Your task to perform on an android device: Search for "corsair k70" on bestbuy.com, select the first entry, and add it to the cart. Image 0: 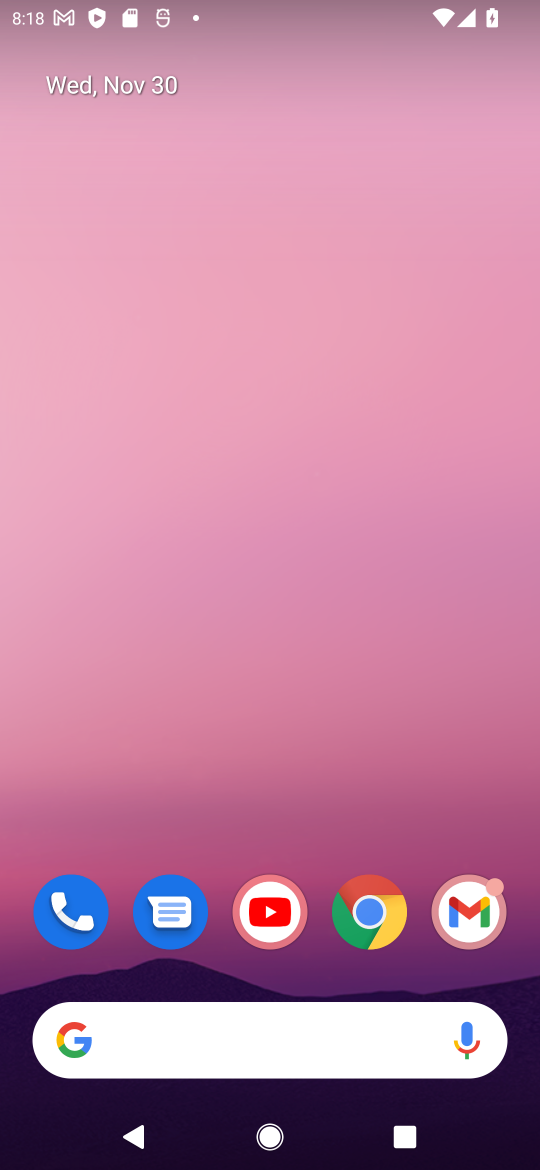
Step 0: click (244, 1013)
Your task to perform on an android device: Search for "corsair k70" on bestbuy.com, select the first entry, and add it to the cart. Image 1: 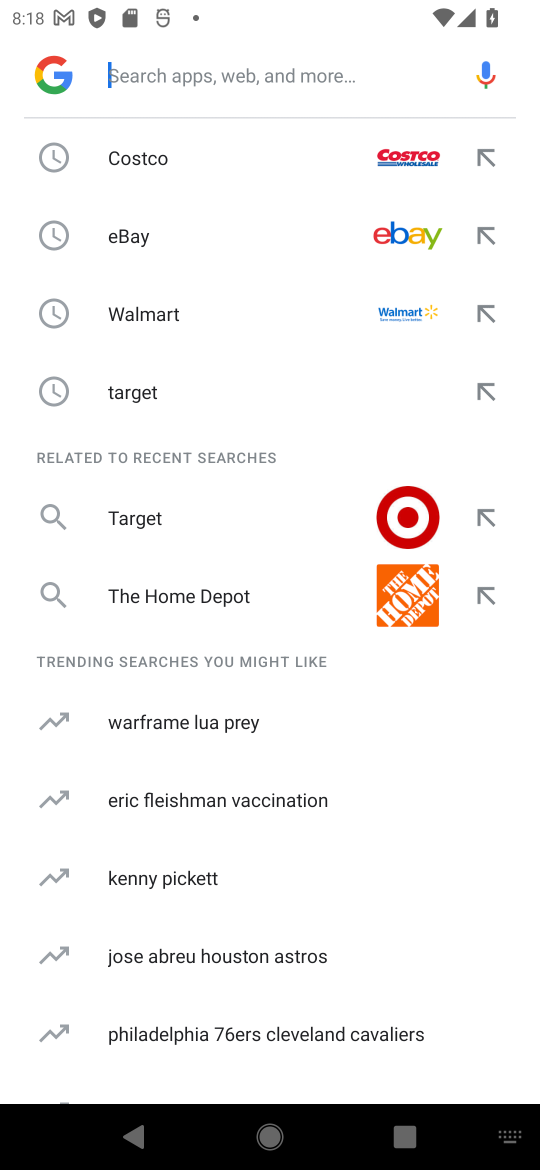
Step 1: type " bestbuy.com"
Your task to perform on an android device: Search for "corsair k70" on bestbuy.com, select the first entry, and add it to the cart. Image 2: 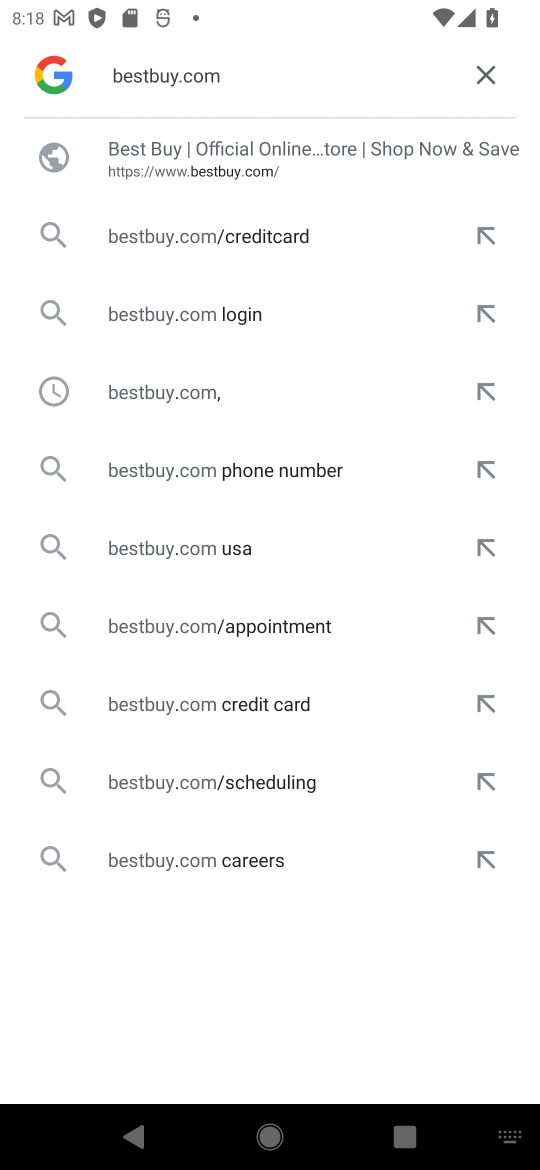
Step 2: click (215, 169)
Your task to perform on an android device: Search for "corsair k70" on bestbuy.com, select the first entry, and add it to the cart. Image 3: 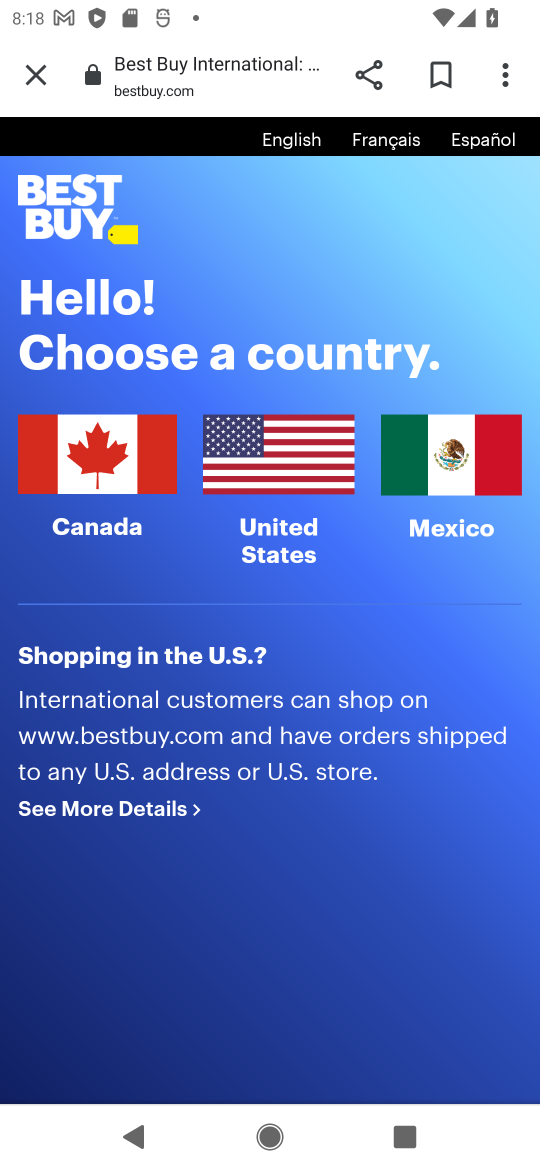
Step 3: click (266, 461)
Your task to perform on an android device: Search for "corsair k70" on bestbuy.com, select the first entry, and add it to the cart. Image 4: 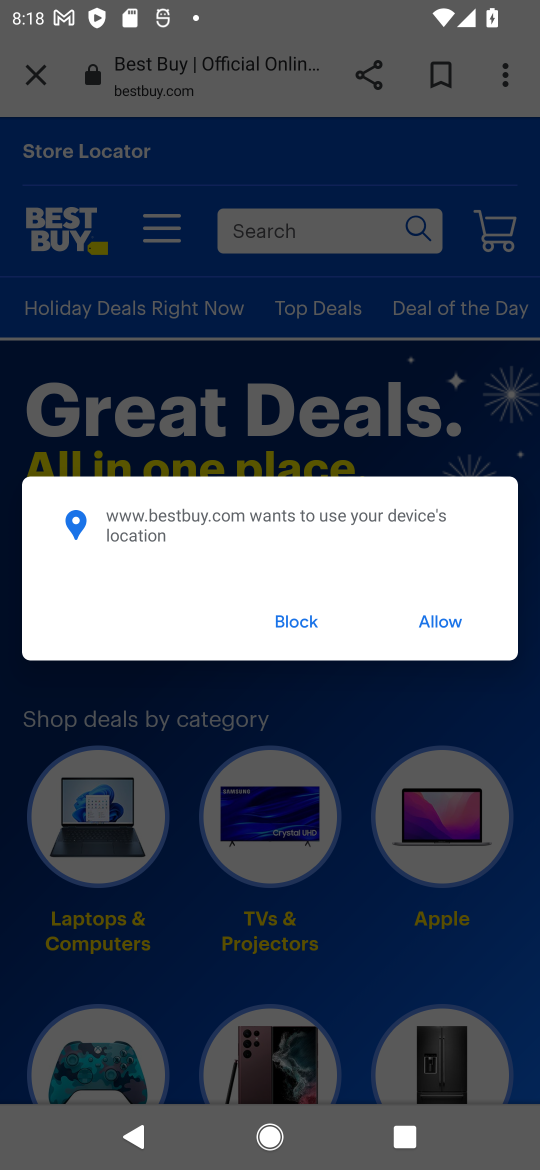
Step 4: click (288, 633)
Your task to perform on an android device: Search for "corsair k70" on bestbuy.com, select the first entry, and add it to the cart. Image 5: 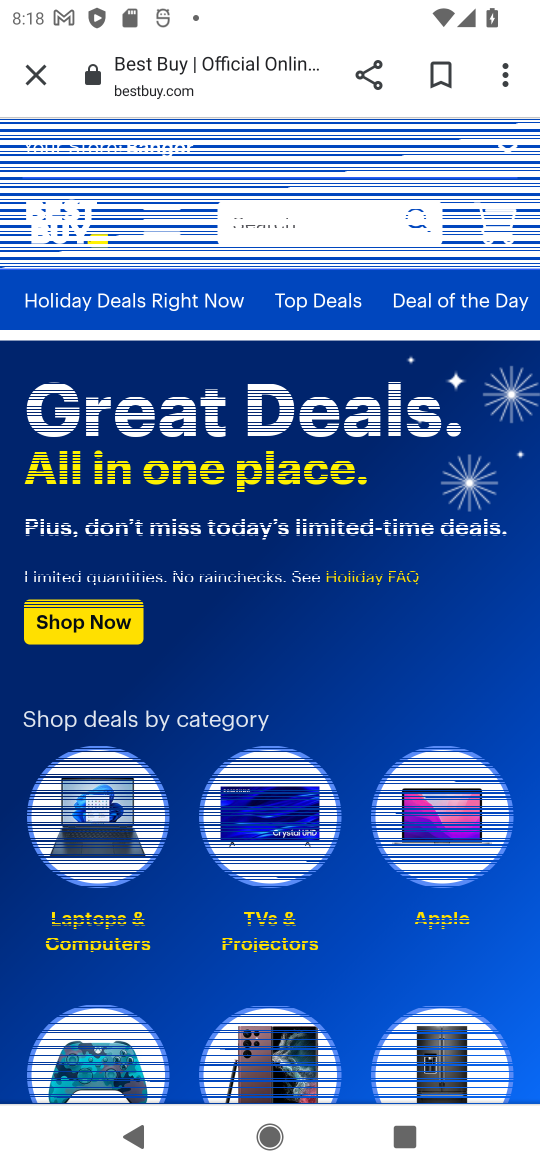
Step 5: click (390, 218)
Your task to perform on an android device: Search for "corsair k70" on bestbuy.com, select the first entry, and add it to the cart. Image 6: 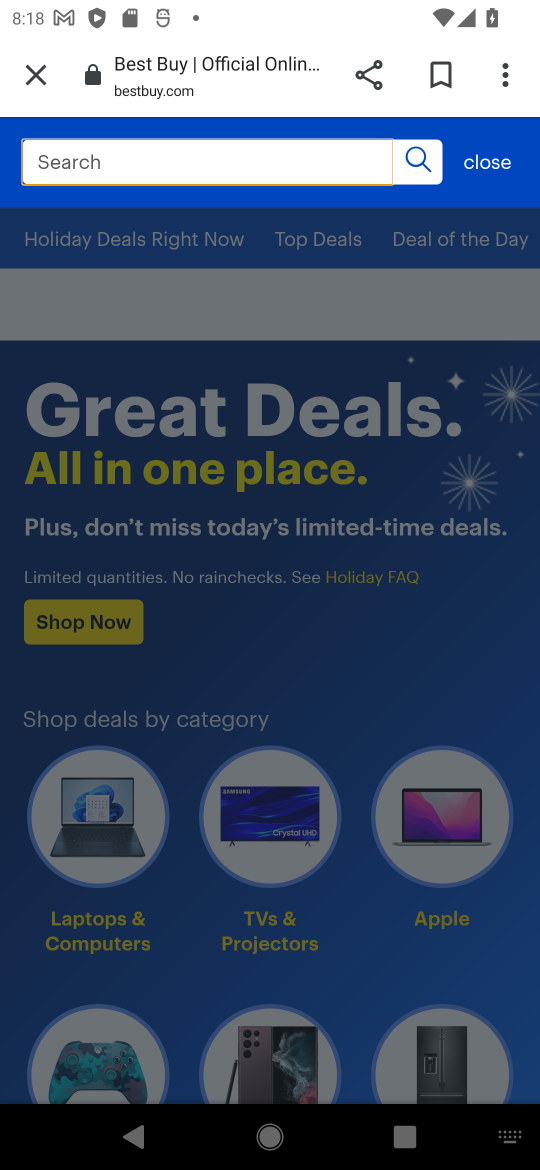
Step 6: type "corsair k70"
Your task to perform on an android device: Search for "corsair k70" on bestbuy.com, select the first entry, and add it to the cart. Image 7: 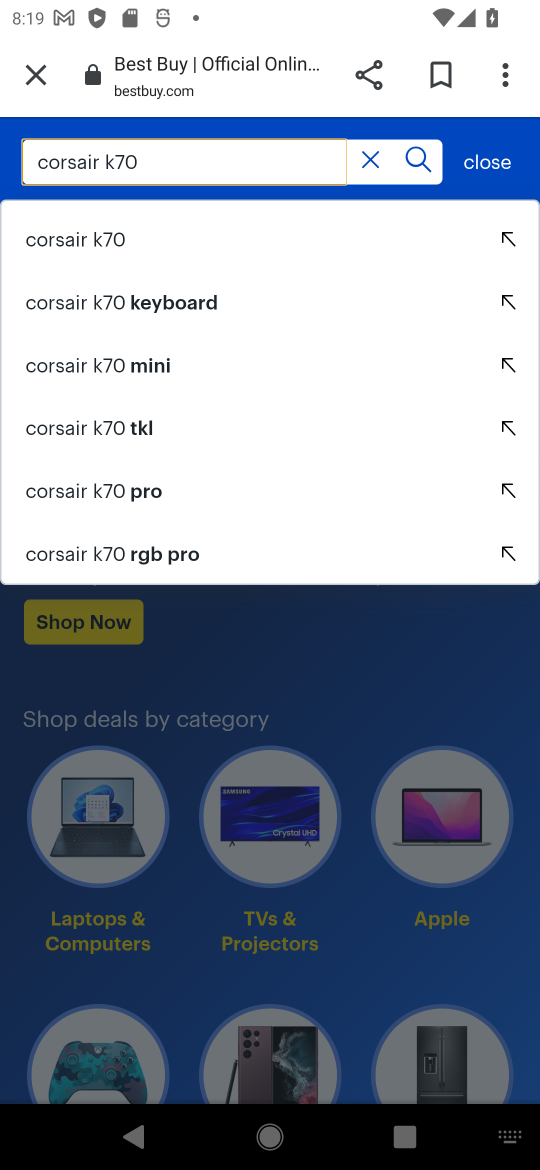
Step 7: click (119, 232)
Your task to perform on an android device: Search for "corsair k70" on bestbuy.com, select the first entry, and add it to the cart. Image 8: 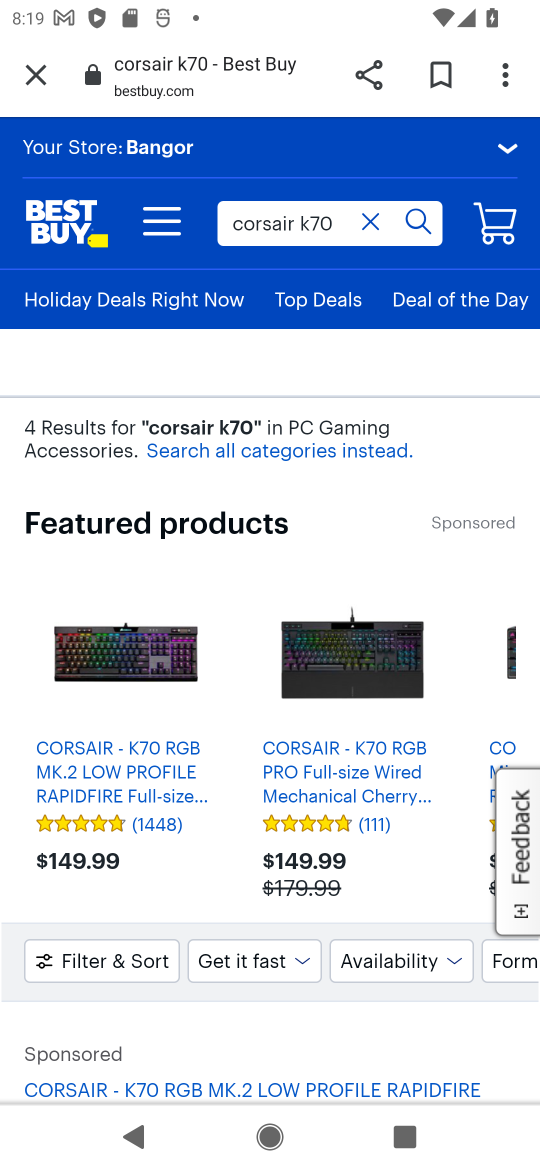
Step 8: drag from (172, 1029) to (234, 509)
Your task to perform on an android device: Search for "corsair k70" on bestbuy.com, select the first entry, and add it to the cart. Image 9: 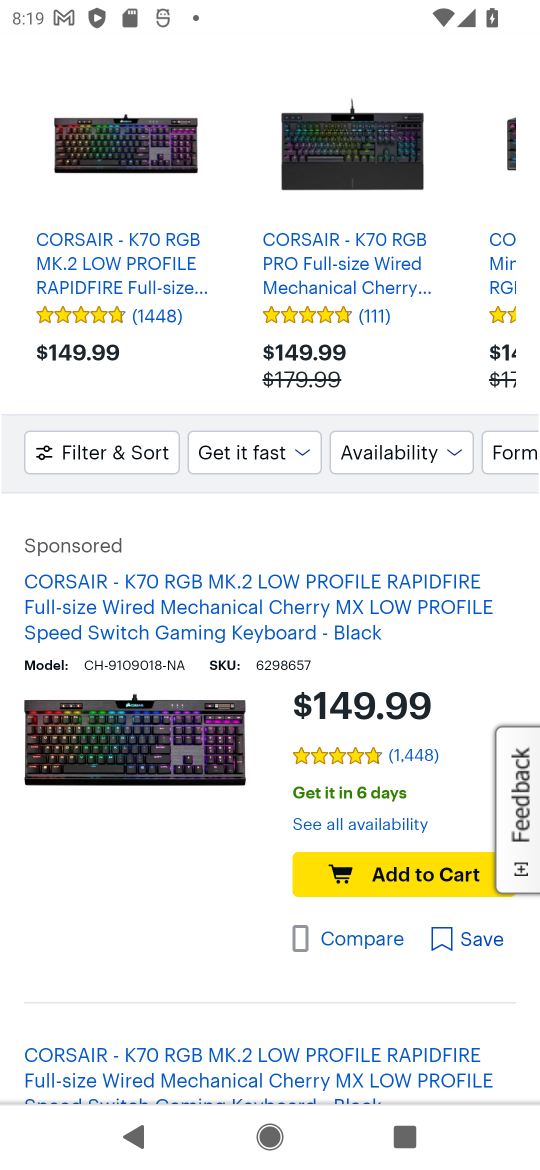
Step 9: click (395, 876)
Your task to perform on an android device: Search for "corsair k70" on bestbuy.com, select the first entry, and add it to the cart. Image 10: 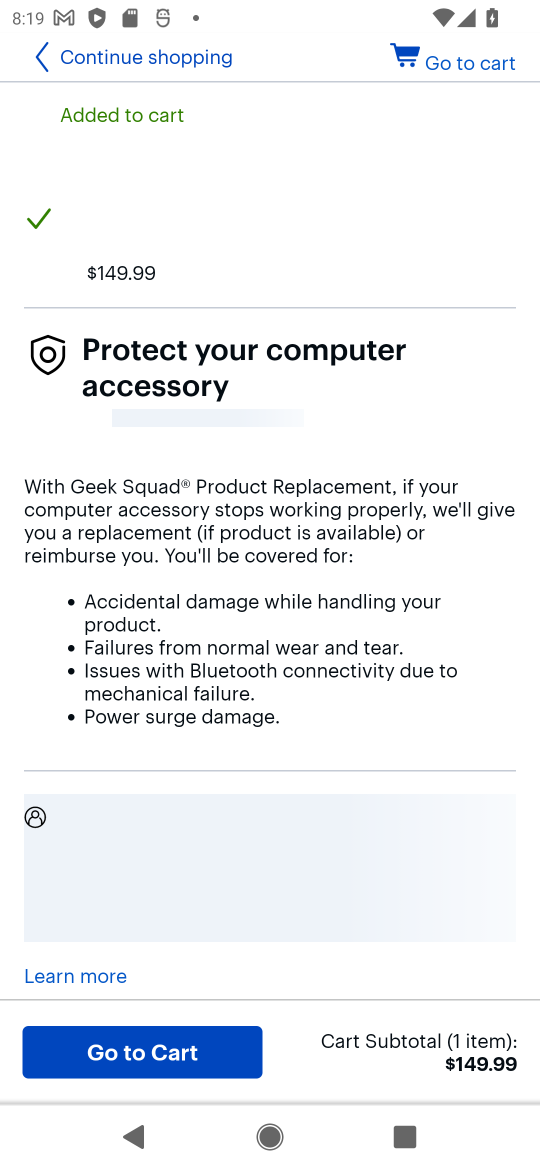
Step 10: task complete